Your task to perform on an android device: What's on my calendar today? Image 0: 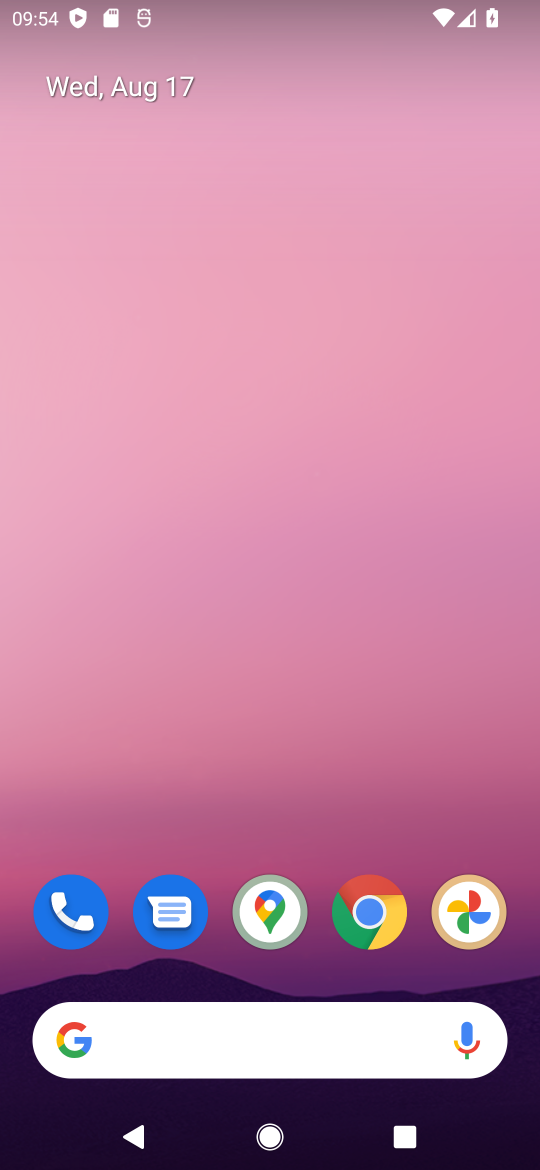
Step 0: drag from (214, 895) to (245, 255)
Your task to perform on an android device: What's on my calendar today? Image 1: 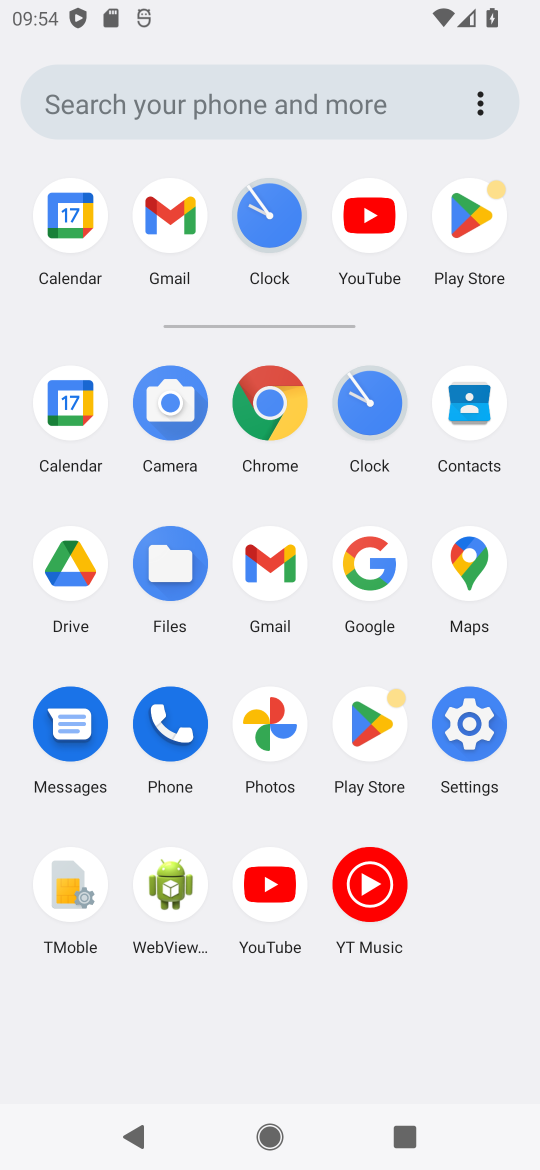
Step 1: click (69, 390)
Your task to perform on an android device: What's on my calendar today? Image 2: 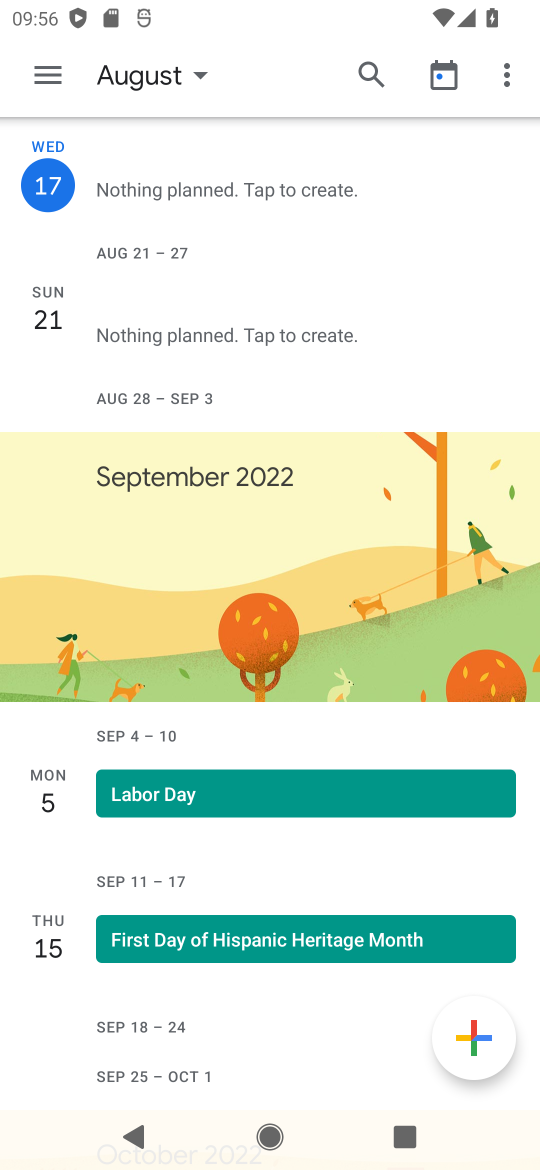
Step 2: task complete